Your task to perform on an android device: What's on my calendar tomorrow? Image 0: 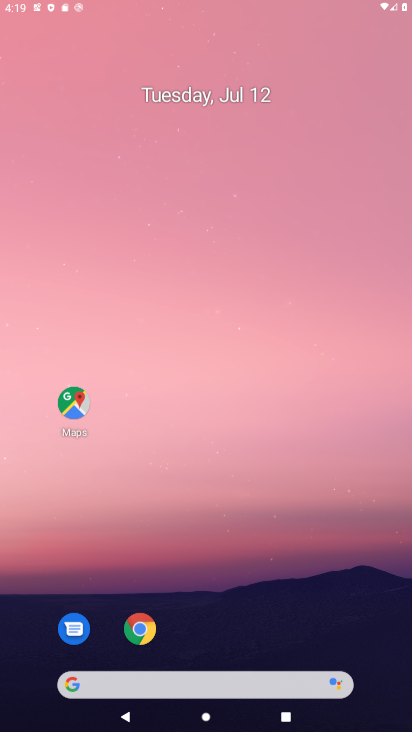
Step 0: press home button
Your task to perform on an android device: What's on my calendar tomorrow? Image 1: 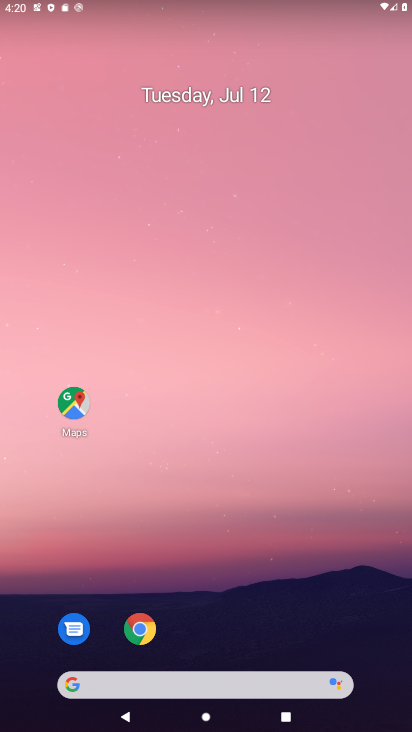
Step 1: drag from (235, 635) to (258, 129)
Your task to perform on an android device: What's on my calendar tomorrow? Image 2: 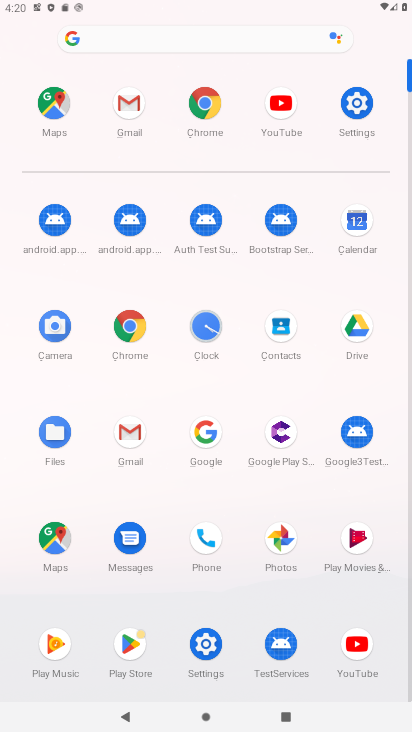
Step 2: click (353, 225)
Your task to perform on an android device: What's on my calendar tomorrow? Image 3: 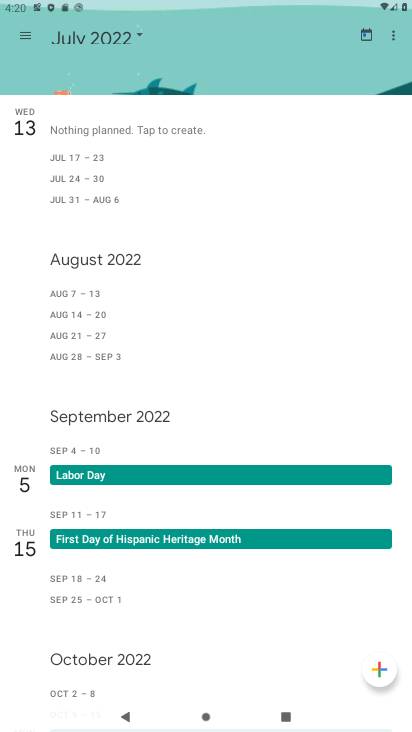
Step 3: click (133, 33)
Your task to perform on an android device: What's on my calendar tomorrow? Image 4: 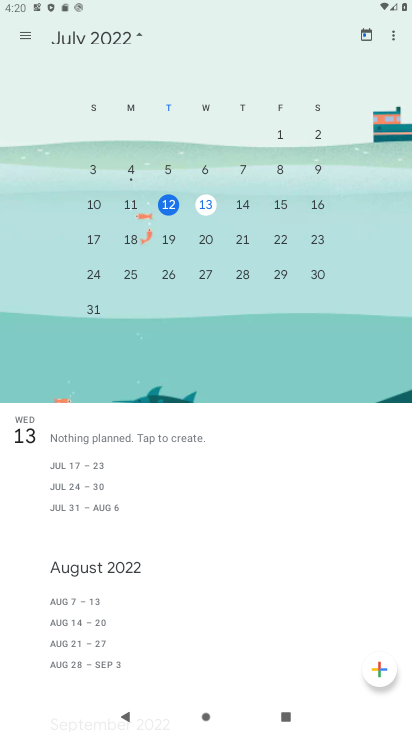
Step 4: click (207, 202)
Your task to perform on an android device: What's on my calendar tomorrow? Image 5: 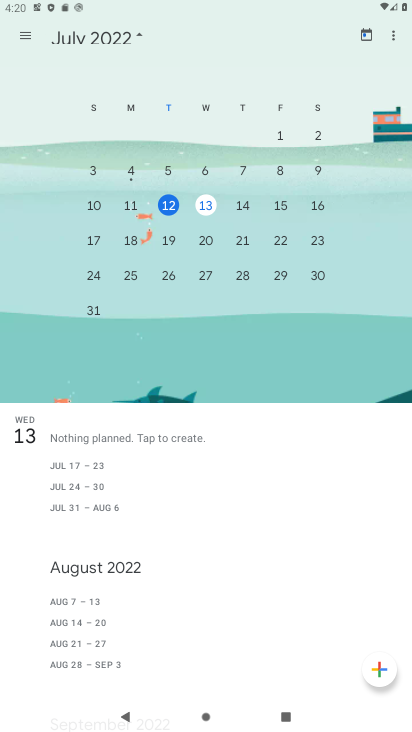
Step 5: task complete